Your task to perform on an android device: open sync settings in chrome Image 0: 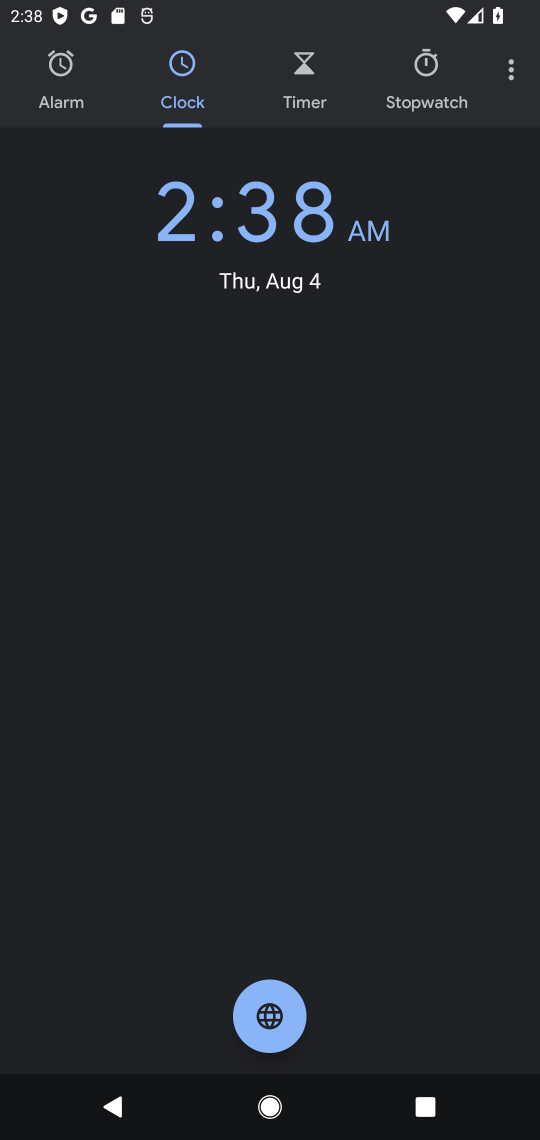
Step 0: press home button
Your task to perform on an android device: open sync settings in chrome Image 1: 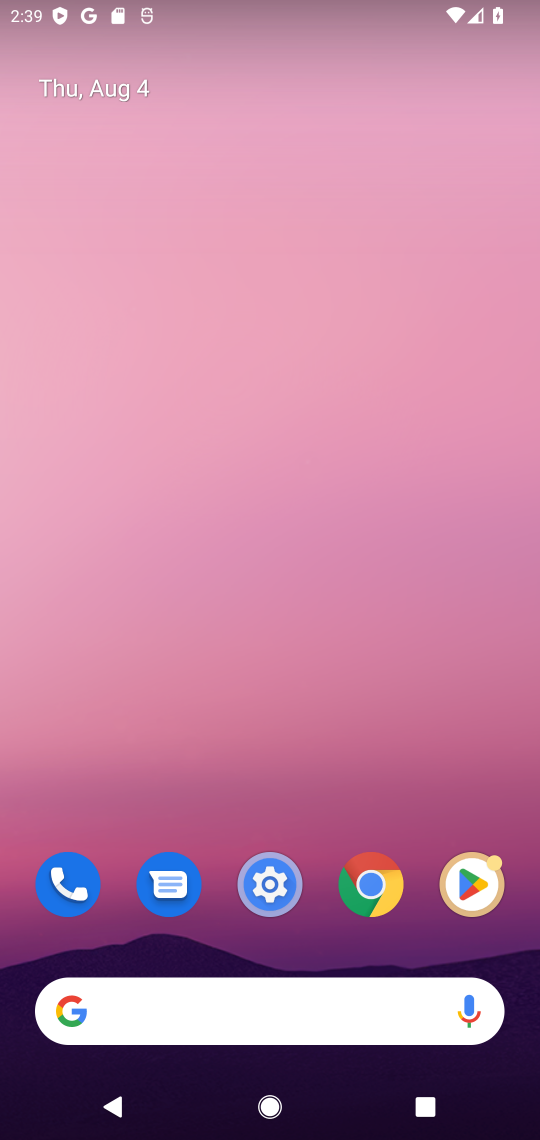
Step 1: drag from (288, 939) to (364, 249)
Your task to perform on an android device: open sync settings in chrome Image 2: 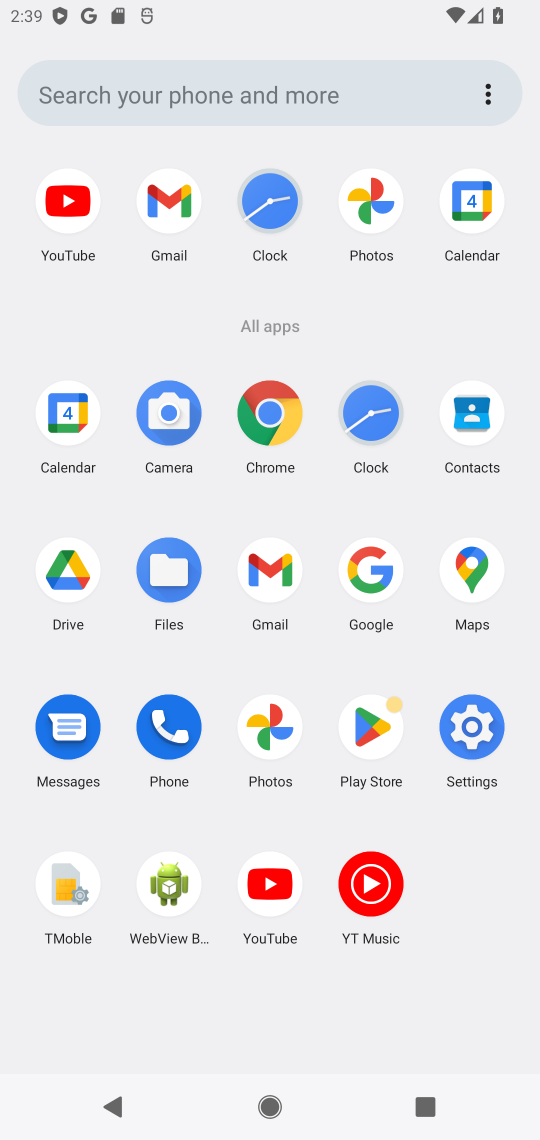
Step 2: click (272, 419)
Your task to perform on an android device: open sync settings in chrome Image 3: 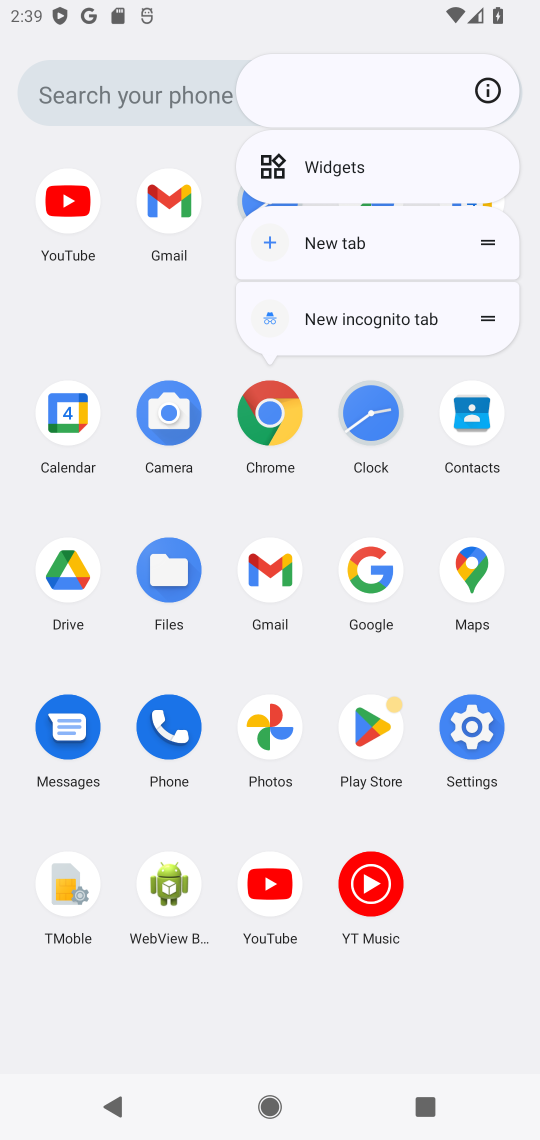
Step 3: click (497, 84)
Your task to perform on an android device: open sync settings in chrome Image 4: 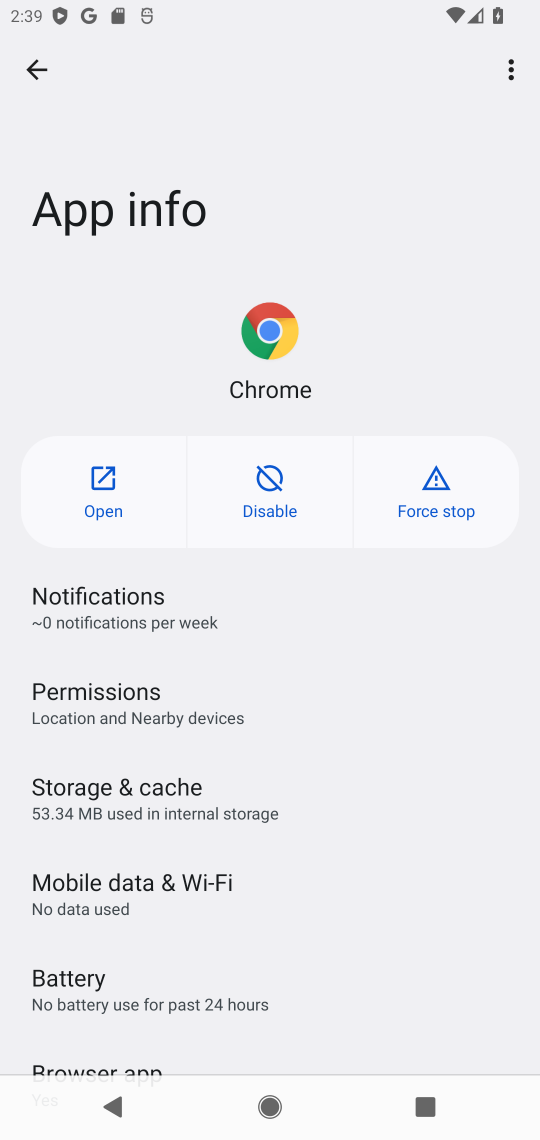
Step 4: click (94, 490)
Your task to perform on an android device: open sync settings in chrome Image 5: 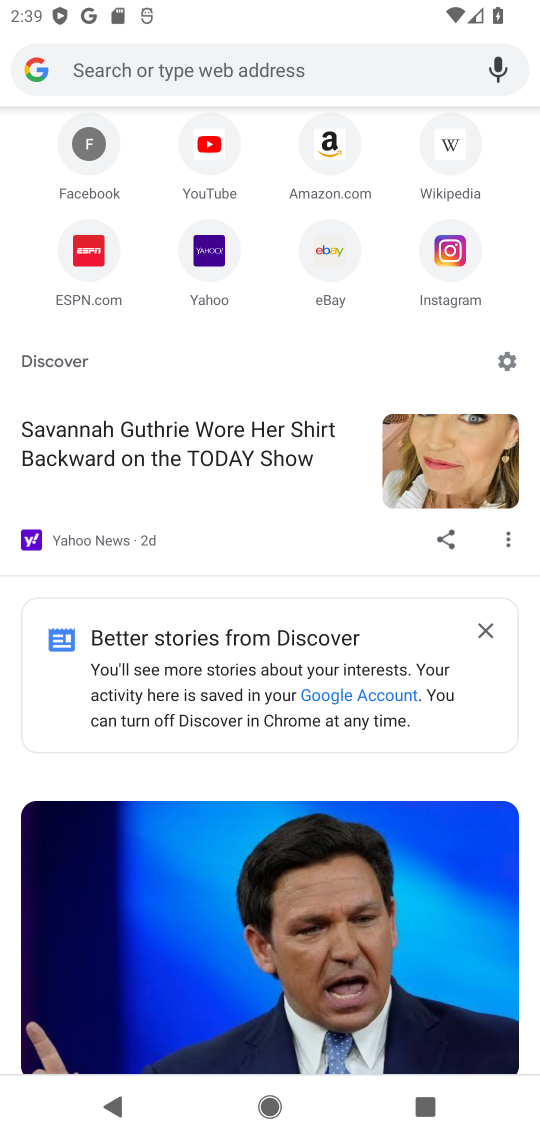
Step 5: drag from (396, 202) to (272, 1007)
Your task to perform on an android device: open sync settings in chrome Image 6: 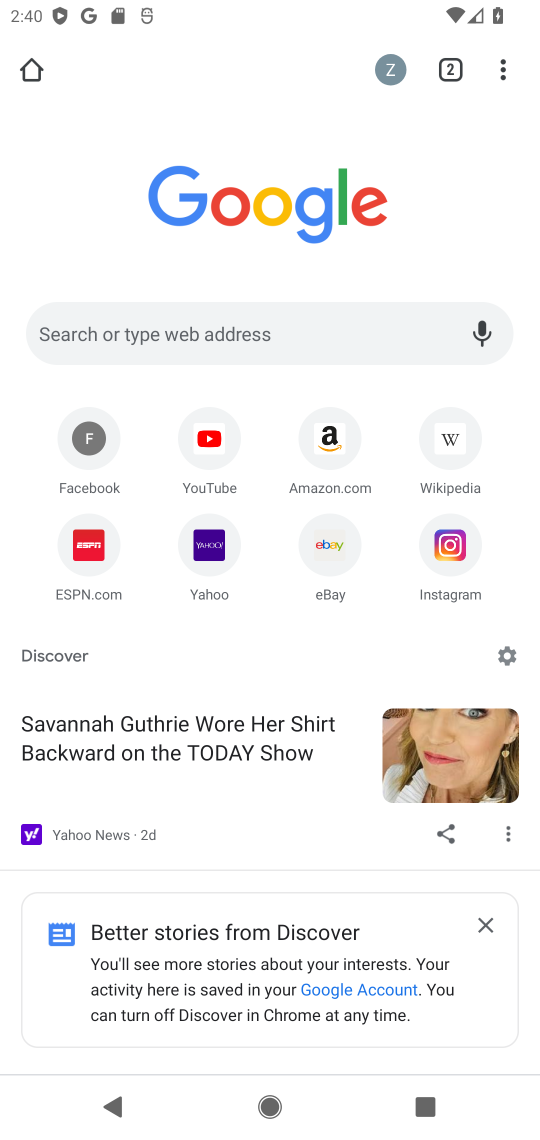
Step 6: drag from (498, 68) to (284, 627)
Your task to perform on an android device: open sync settings in chrome Image 7: 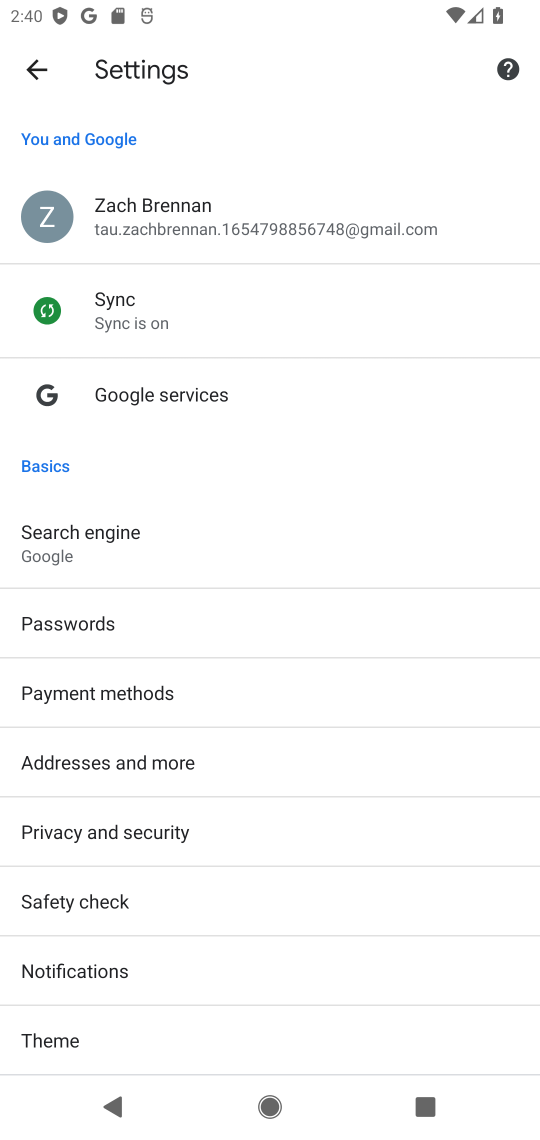
Step 7: drag from (184, 869) to (206, 422)
Your task to perform on an android device: open sync settings in chrome Image 8: 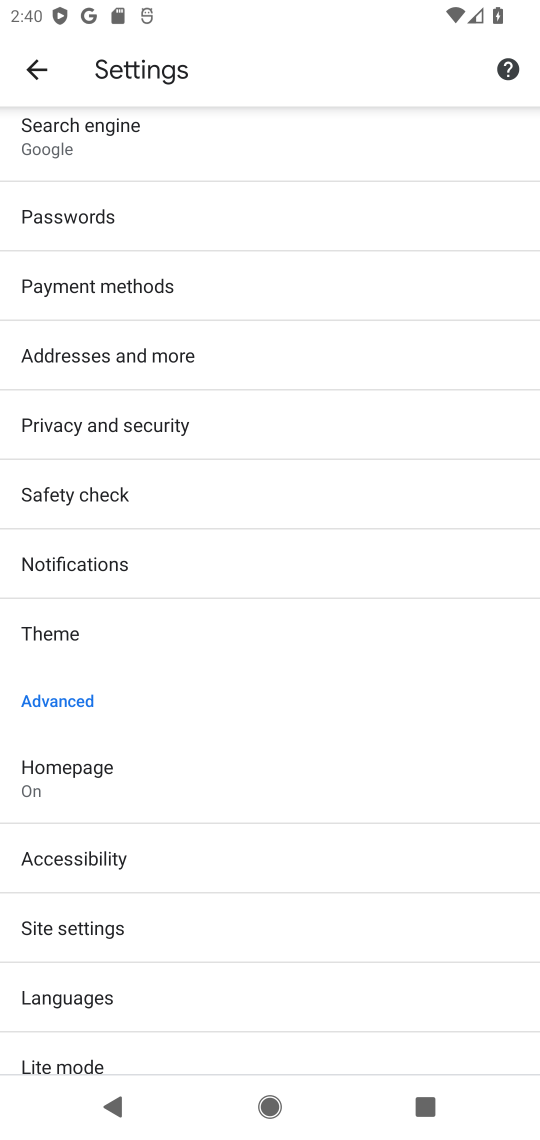
Step 8: click (130, 919)
Your task to perform on an android device: open sync settings in chrome Image 9: 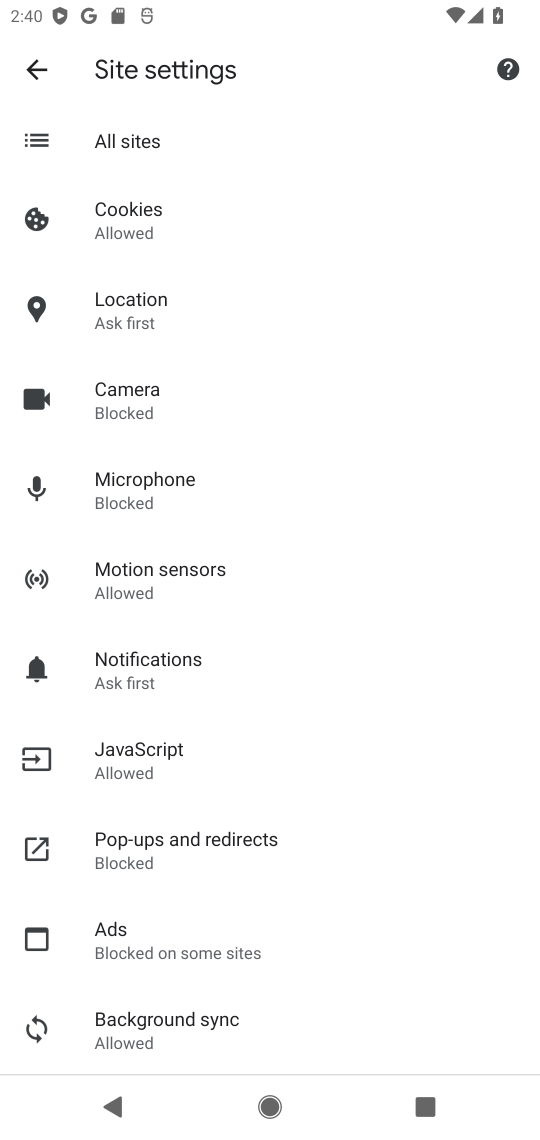
Step 9: drag from (192, 929) to (258, 436)
Your task to perform on an android device: open sync settings in chrome Image 10: 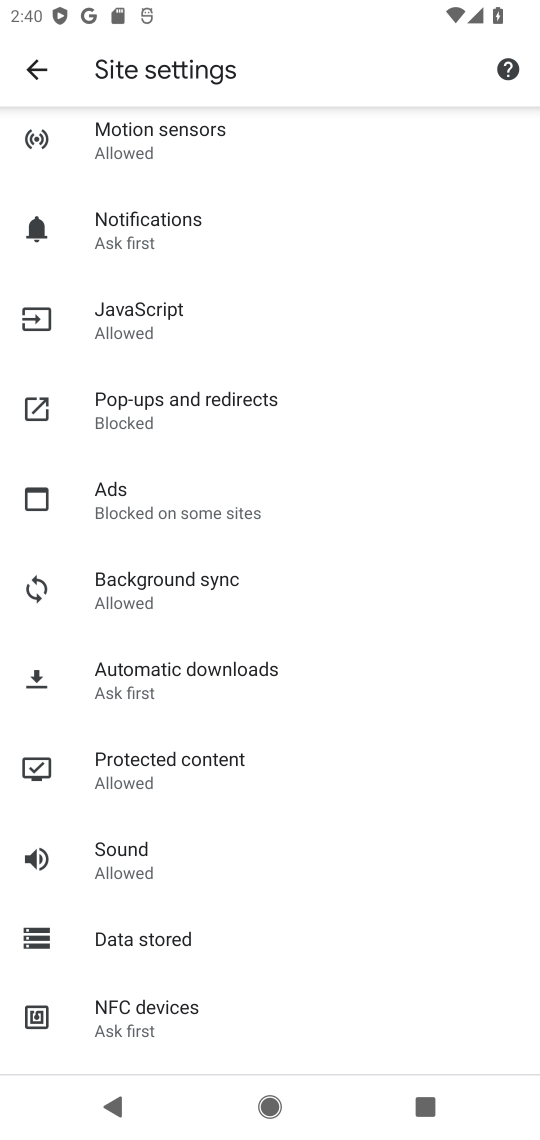
Step 10: click (213, 570)
Your task to perform on an android device: open sync settings in chrome Image 11: 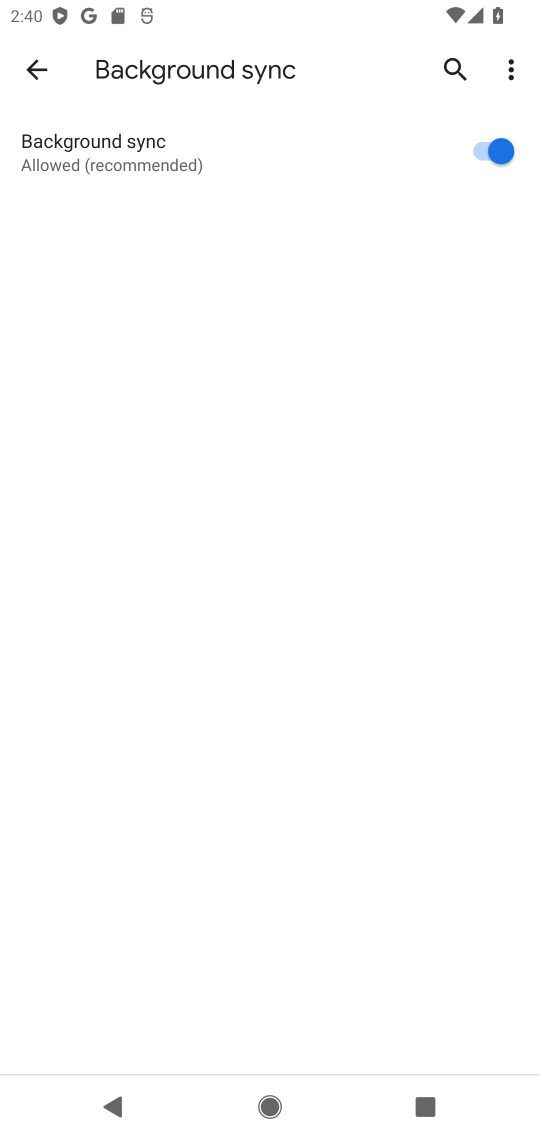
Step 11: task complete